Your task to perform on an android device: turn pop-ups on in chrome Image 0: 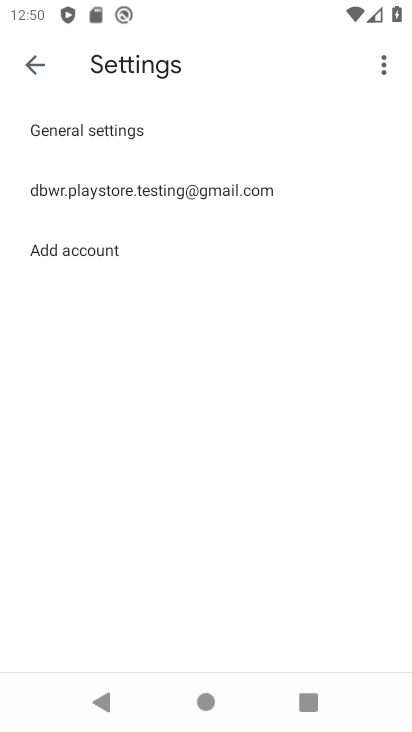
Step 0: press home button
Your task to perform on an android device: turn pop-ups on in chrome Image 1: 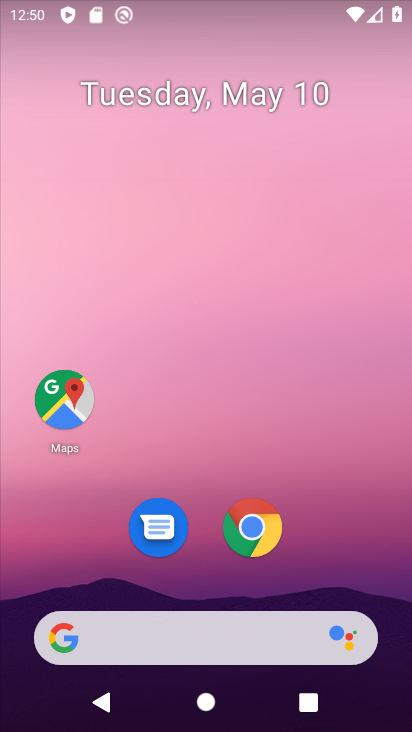
Step 1: click (254, 530)
Your task to perform on an android device: turn pop-ups on in chrome Image 2: 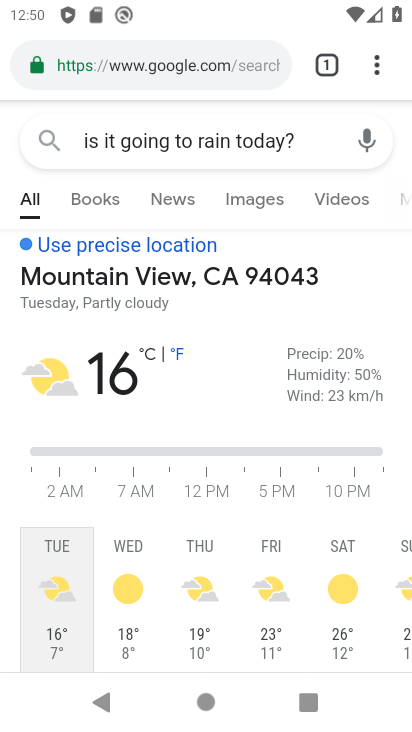
Step 2: drag from (374, 65) to (183, 579)
Your task to perform on an android device: turn pop-ups on in chrome Image 3: 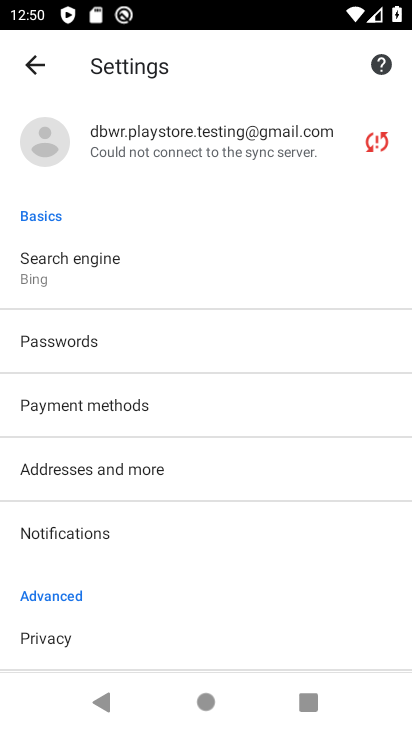
Step 3: drag from (182, 577) to (195, 269)
Your task to perform on an android device: turn pop-ups on in chrome Image 4: 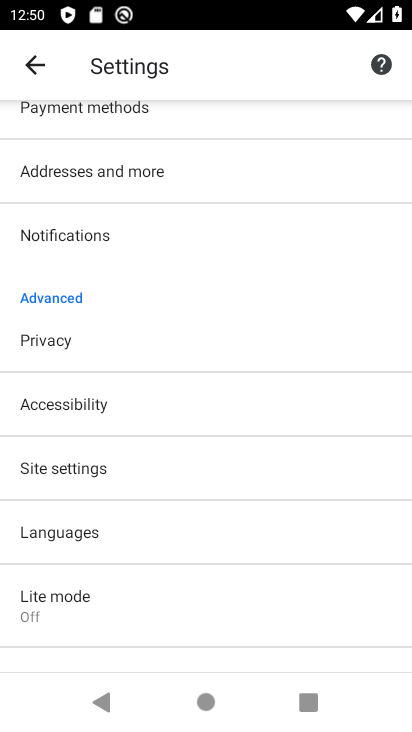
Step 4: click (98, 471)
Your task to perform on an android device: turn pop-ups on in chrome Image 5: 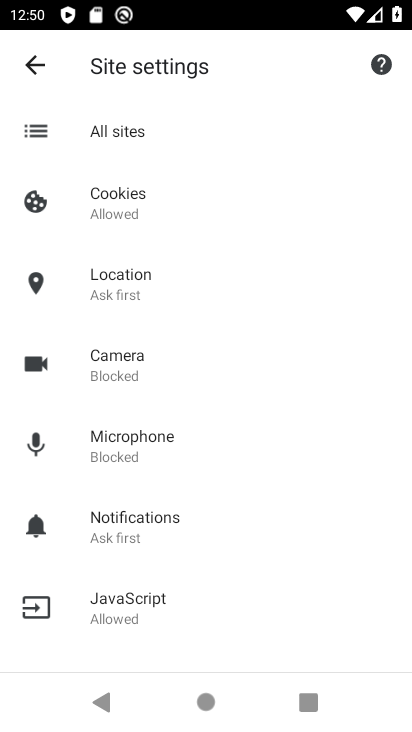
Step 5: drag from (276, 584) to (297, 263)
Your task to perform on an android device: turn pop-ups on in chrome Image 6: 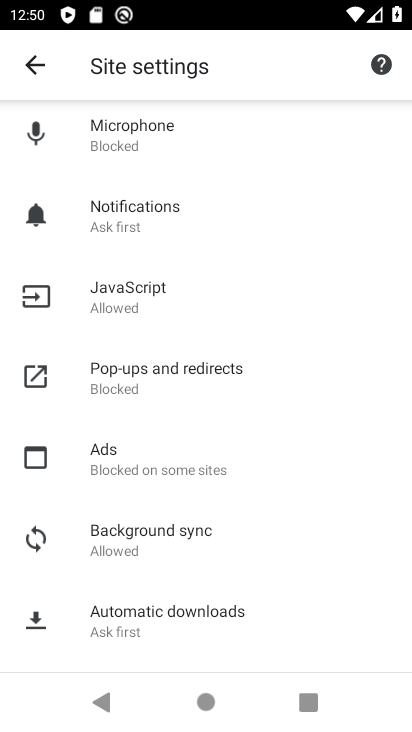
Step 6: click (262, 370)
Your task to perform on an android device: turn pop-ups on in chrome Image 7: 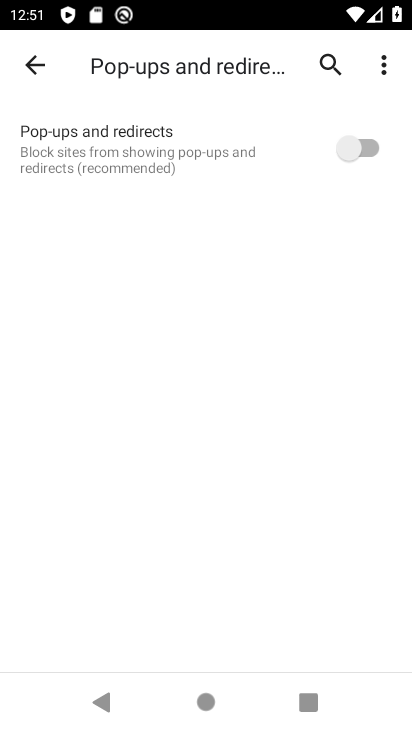
Step 7: click (358, 150)
Your task to perform on an android device: turn pop-ups on in chrome Image 8: 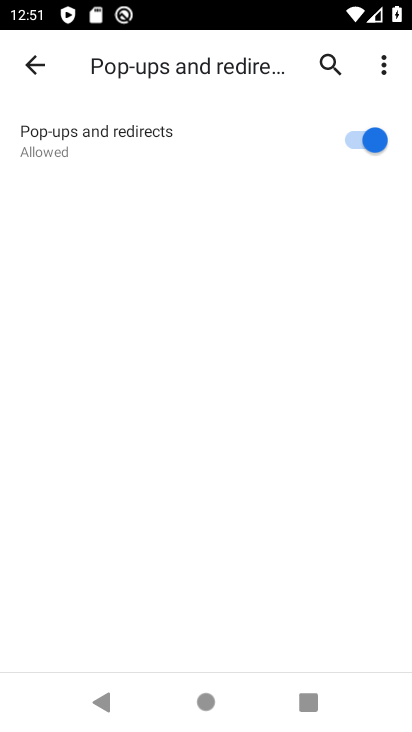
Step 8: task complete